Your task to perform on an android device: Open eBay Image 0: 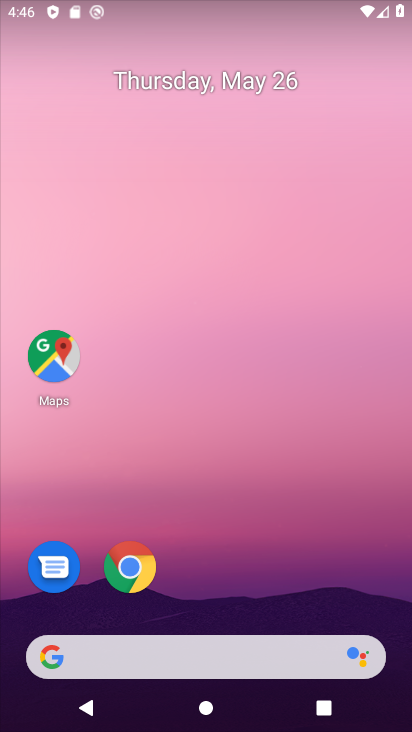
Step 0: click (214, 660)
Your task to perform on an android device: Open eBay Image 1: 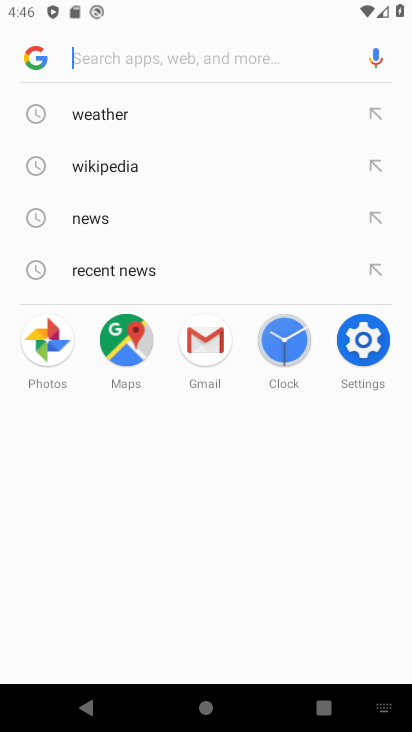
Step 1: type "eBay"
Your task to perform on an android device: Open eBay Image 2: 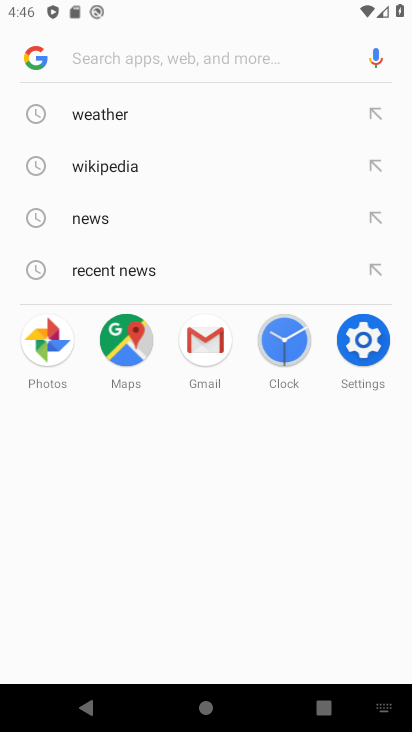
Step 2: click (127, 52)
Your task to perform on an android device: Open eBay Image 3: 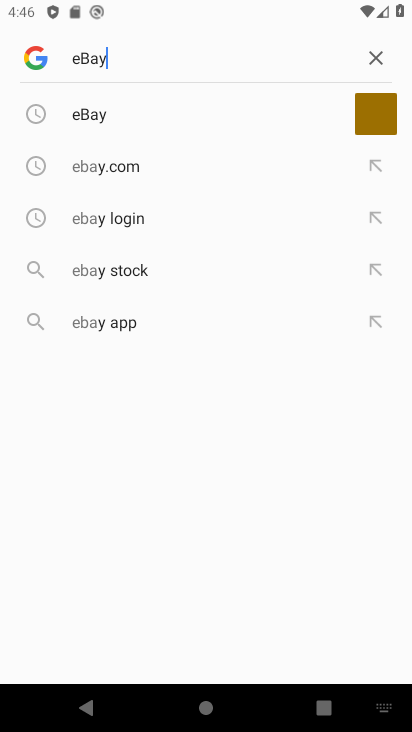
Step 3: click (178, 57)
Your task to perform on an android device: Open eBay Image 4: 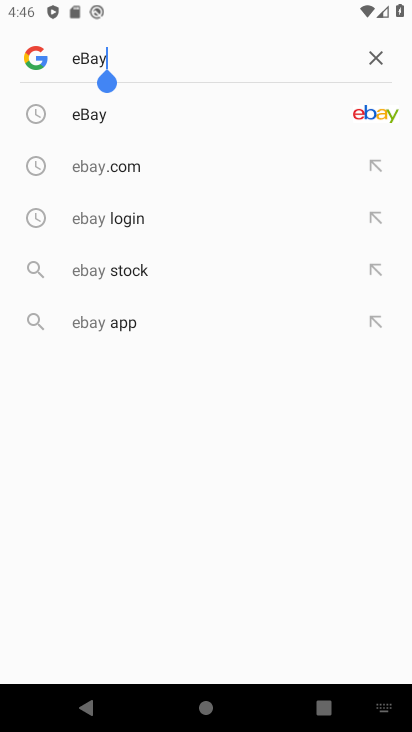
Step 4: click (92, 113)
Your task to perform on an android device: Open eBay Image 5: 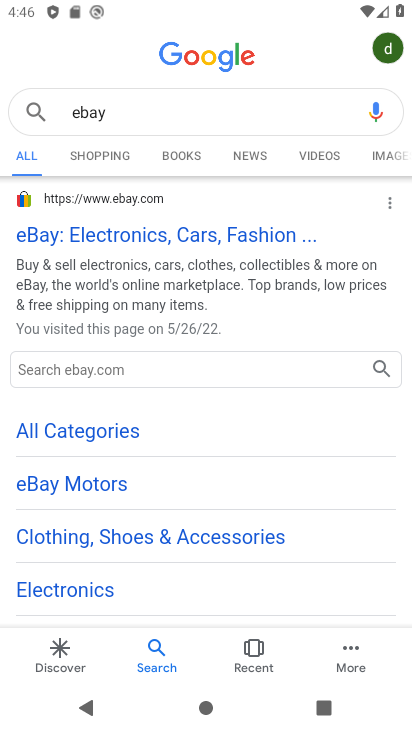
Step 5: click (138, 235)
Your task to perform on an android device: Open eBay Image 6: 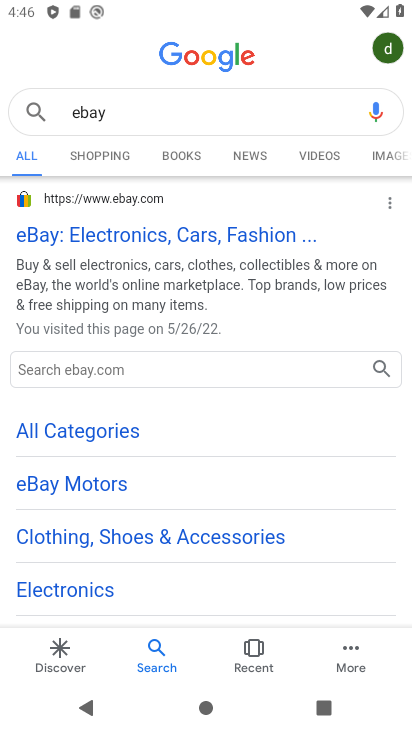
Step 6: click (146, 236)
Your task to perform on an android device: Open eBay Image 7: 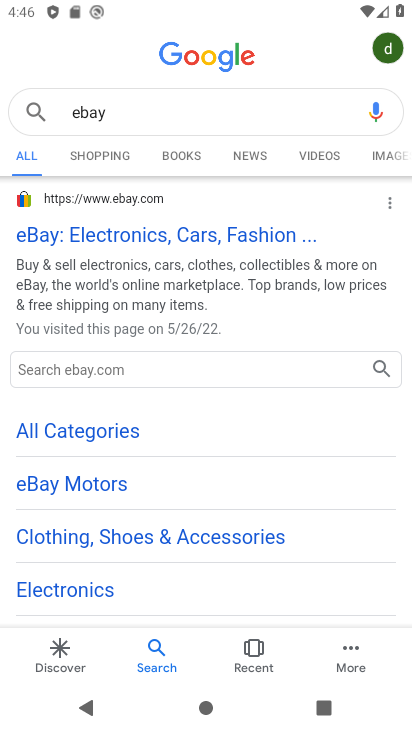
Step 7: click (240, 232)
Your task to perform on an android device: Open eBay Image 8: 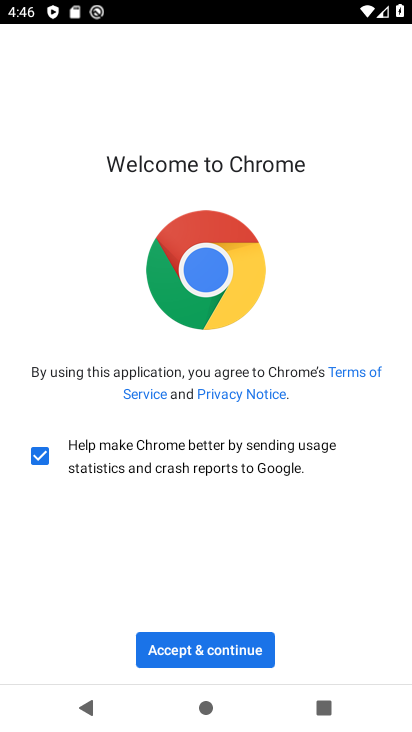
Step 8: click (189, 639)
Your task to perform on an android device: Open eBay Image 9: 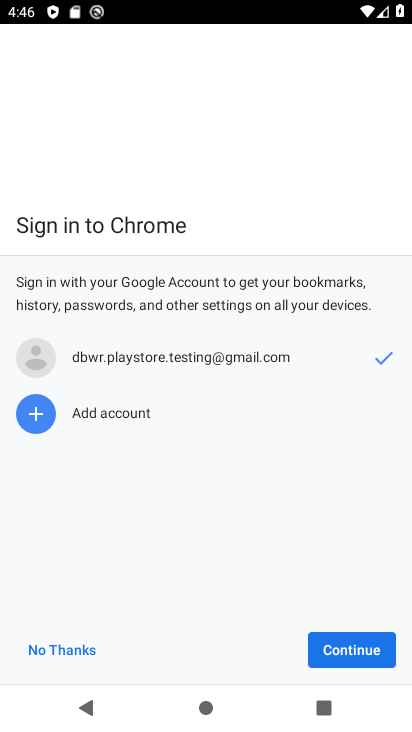
Step 9: click (344, 647)
Your task to perform on an android device: Open eBay Image 10: 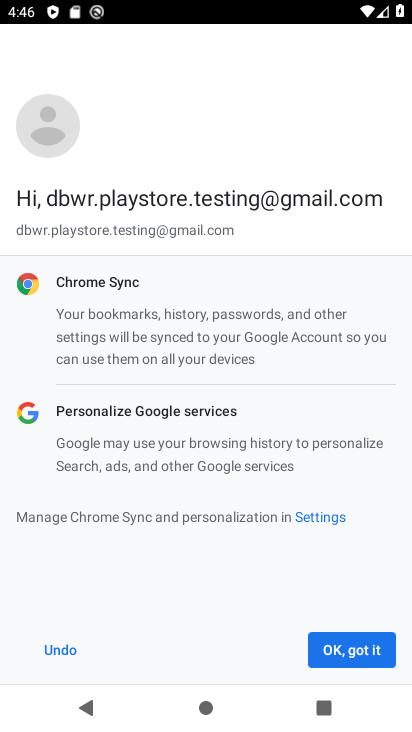
Step 10: click (344, 647)
Your task to perform on an android device: Open eBay Image 11: 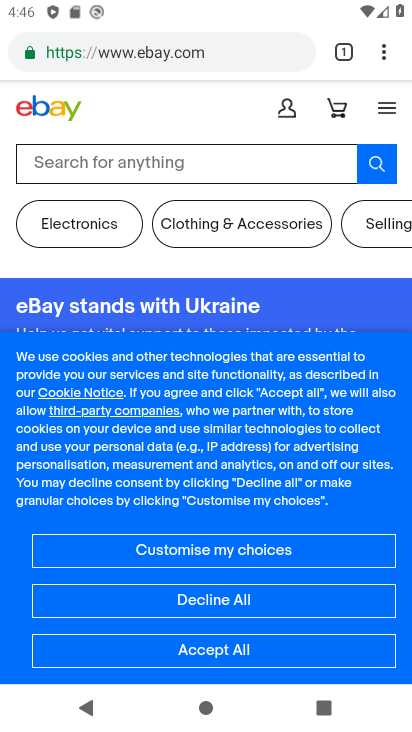
Step 11: task complete